Your task to perform on an android device: Show me popular games on the Play Store Image 0: 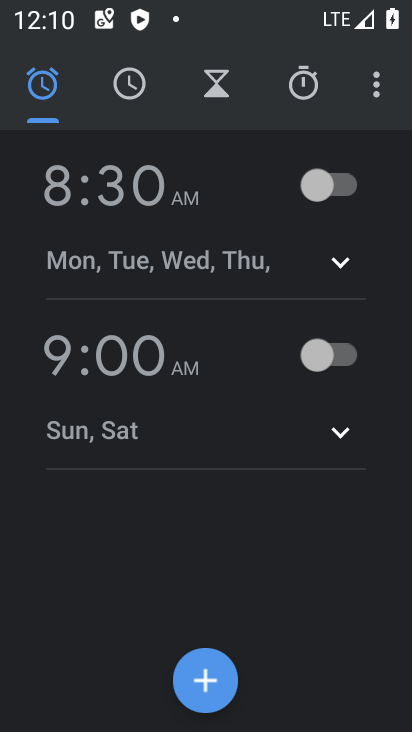
Step 0: press home button
Your task to perform on an android device: Show me popular games on the Play Store Image 1: 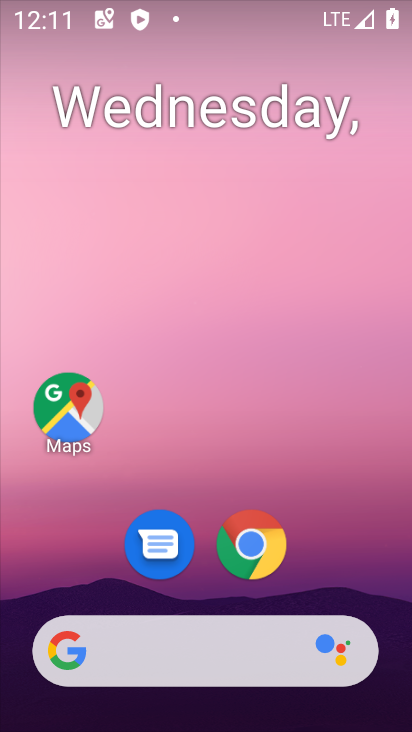
Step 1: drag from (374, 635) to (347, 11)
Your task to perform on an android device: Show me popular games on the Play Store Image 2: 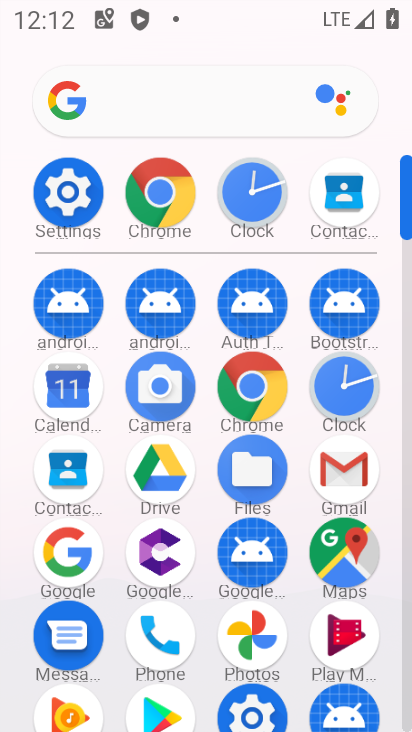
Step 2: click (149, 692)
Your task to perform on an android device: Show me popular games on the Play Store Image 3: 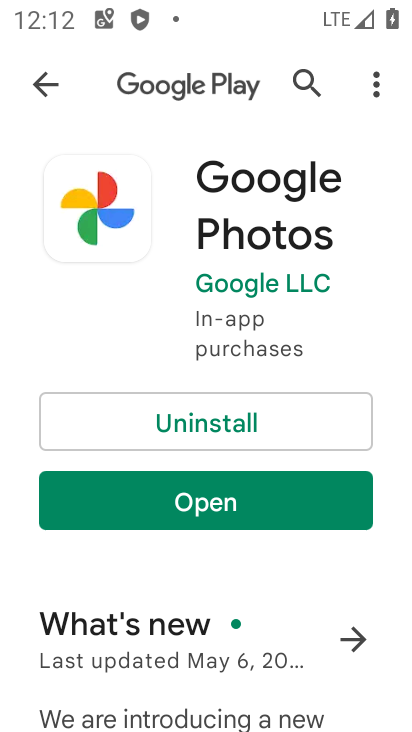
Step 3: press back button
Your task to perform on an android device: Show me popular games on the Play Store Image 4: 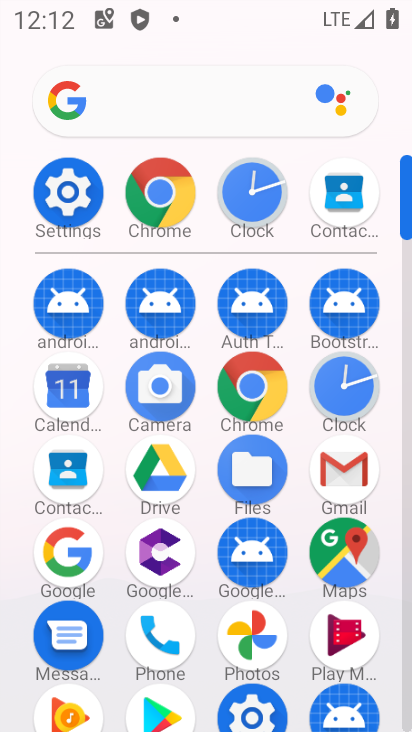
Step 4: click (173, 696)
Your task to perform on an android device: Show me popular games on the Play Store Image 5: 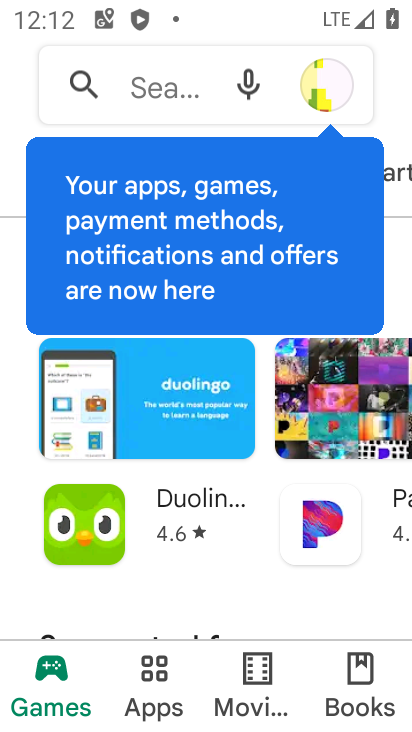
Step 5: task complete